Your task to perform on an android device: turn off javascript in the chrome app Image 0: 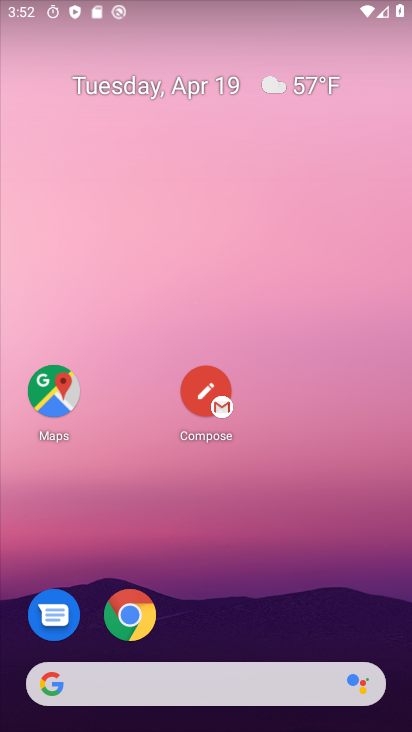
Step 0: drag from (297, 642) to (304, 94)
Your task to perform on an android device: turn off javascript in the chrome app Image 1: 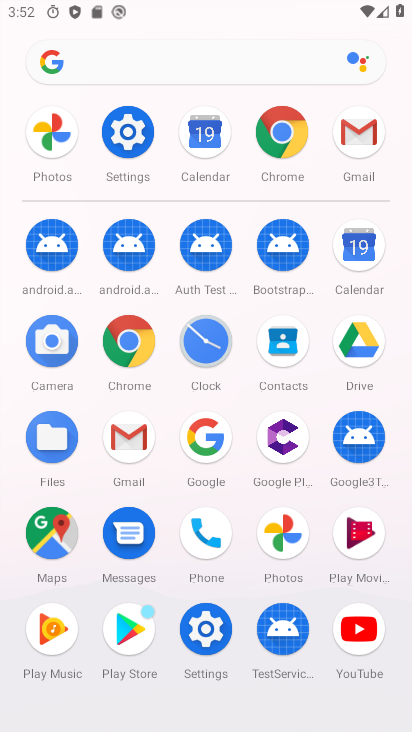
Step 1: click (129, 347)
Your task to perform on an android device: turn off javascript in the chrome app Image 2: 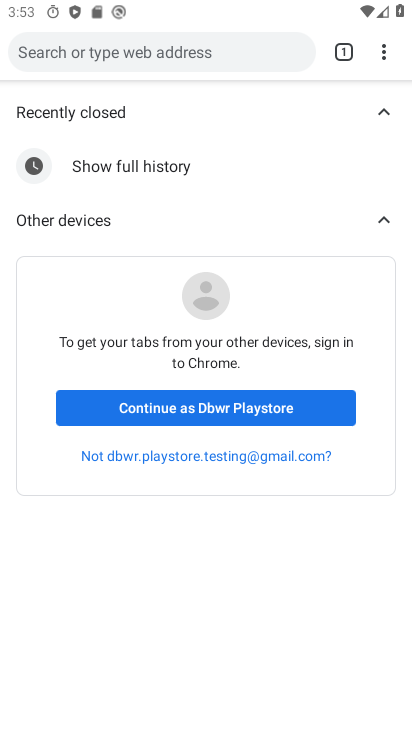
Step 2: click (377, 52)
Your task to perform on an android device: turn off javascript in the chrome app Image 3: 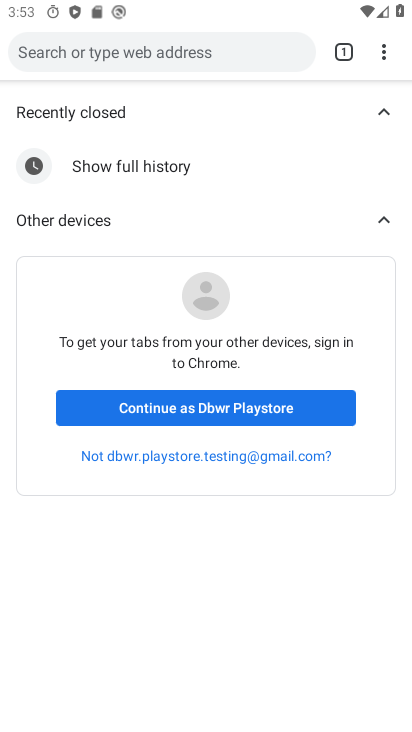
Step 3: click (372, 50)
Your task to perform on an android device: turn off javascript in the chrome app Image 4: 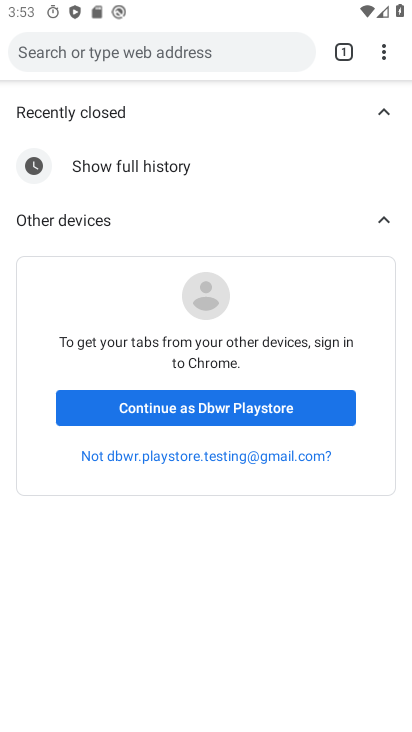
Step 4: click (365, 51)
Your task to perform on an android device: turn off javascript in the chrome app Image 5: 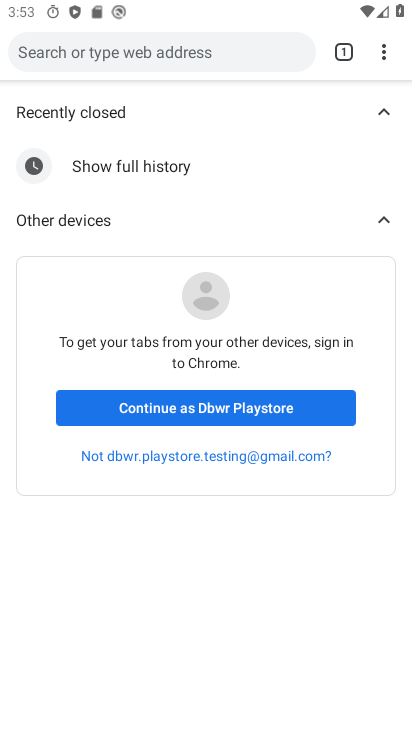
Step 5: click (385, 47)
Your task to perform on an android device: turn off javascript in the chrome app Image 6: 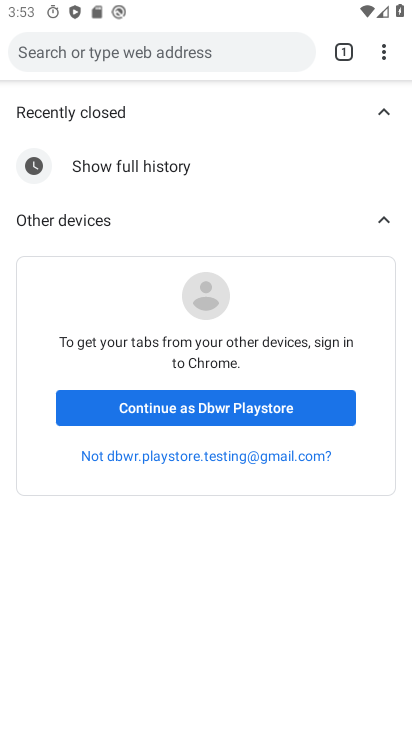
Step 6: click (402, 46)
Your task to perform on an android device: turn off javascript in the chrome app Image 7: 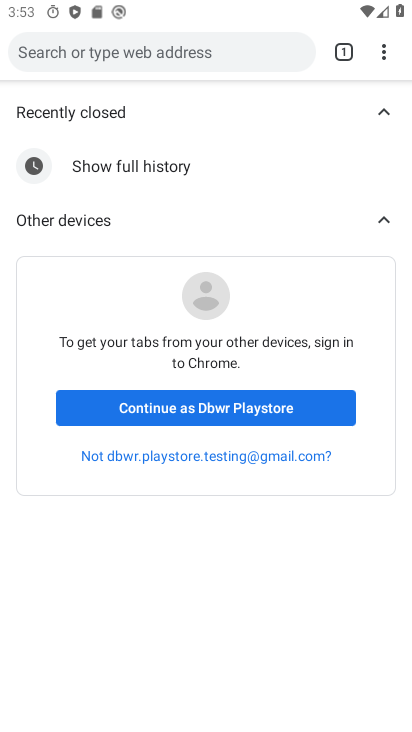
Step 7: click (393, 52)
Your task to perform on an android device: turn off javascript in the chrome app Image 8: 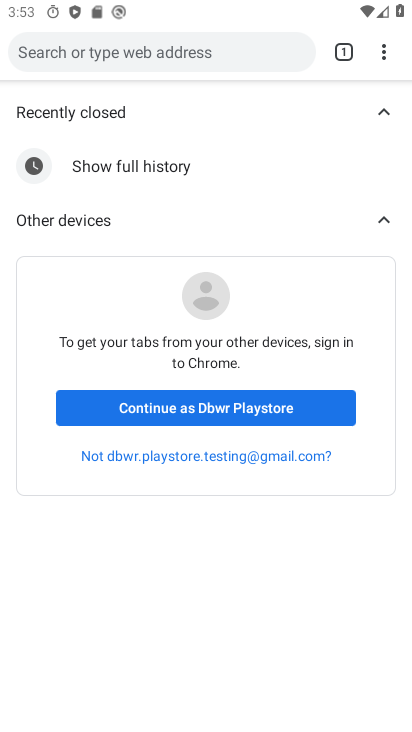
Step 8: click (387, 52)
Your task to perform on an android device: turn off javascript in the chrome app Image 9: 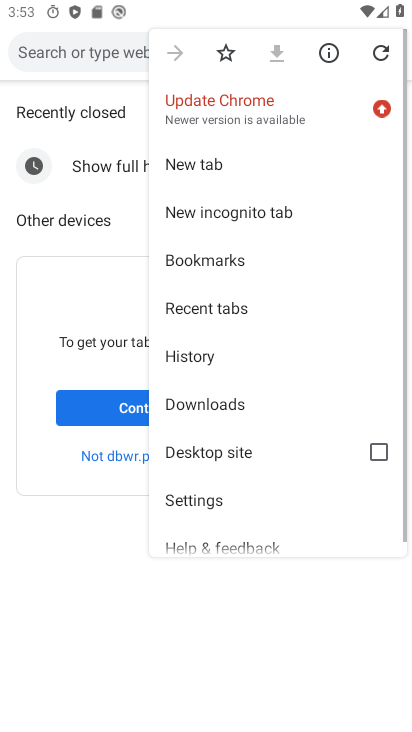
Step 9: drag from (263, 535) to (304, 162)
Your task to perform on an android device: turn off javascript in the chrome app Image 10: 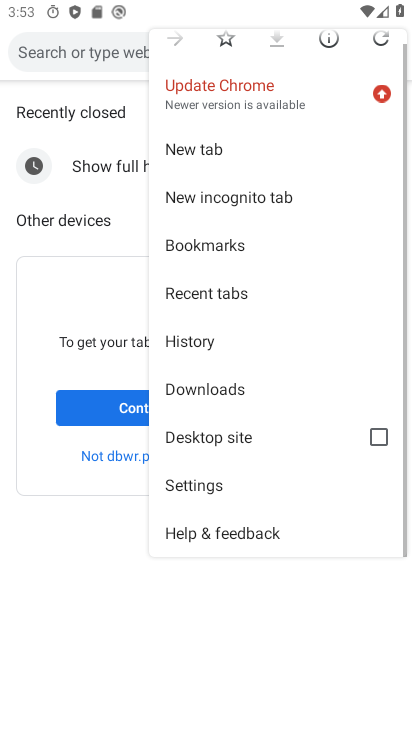
Step 10: click (257, 490)
Your task to perform on an android device: turn off javascript in the chrome app Image 11: 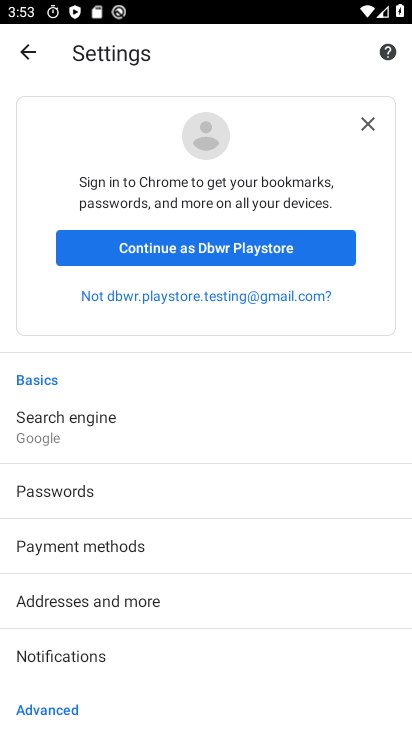
Step 11: drag from (308, 590) to (283, 181)
Your task to perform on an android device: turn off javascript in the chrome app Image 12: 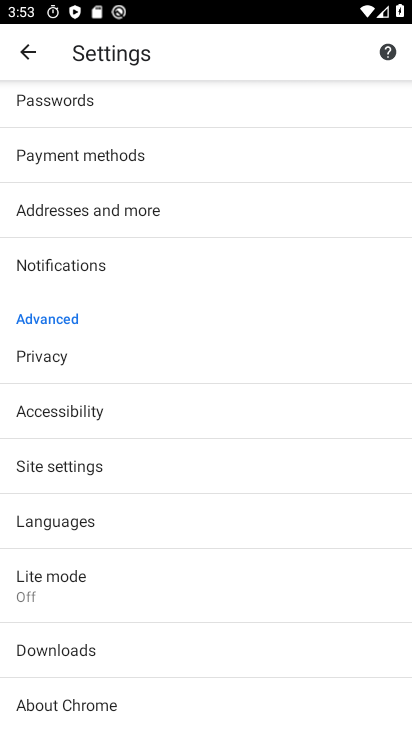
Step 12: click (72, 462)
Your task to perform on an android device: turn off javascript in the chrome app Image 13: 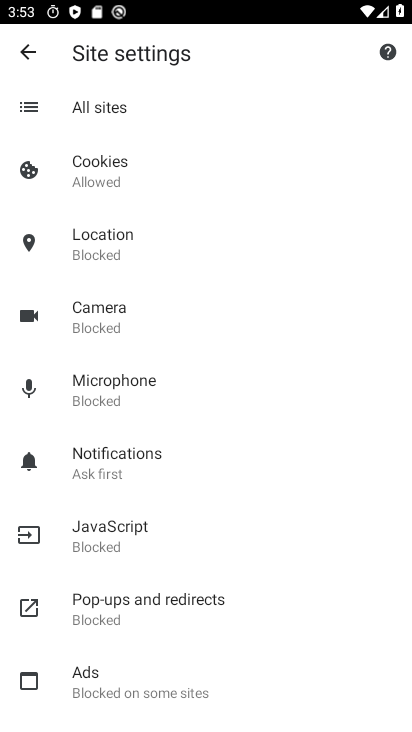
Step 13: click (174, 529)
Your task to perform on an android device: turn off javascript in the chrome app Image 14: 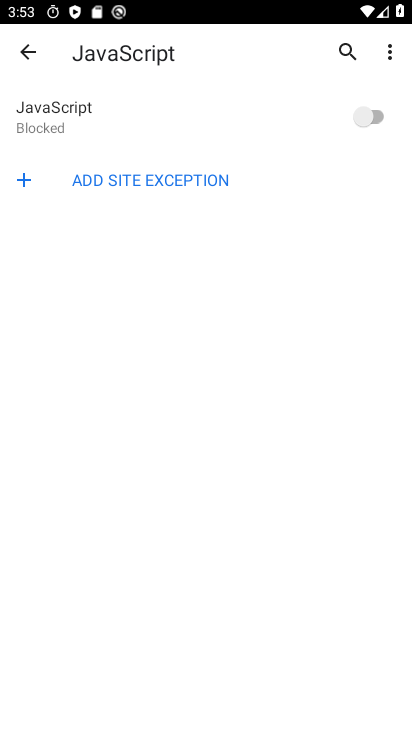
Step 14: task complete